Your task to perform on an android device: turn smart compose on in the gmail app Image 0: 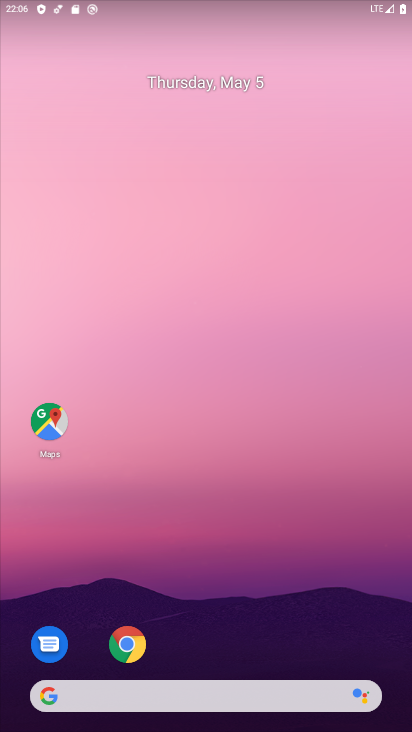
Step 0: drag from (199, 656) to (134, 40)
Your task to perform on an android device: turn smart compose on in the gmail app Image 1: 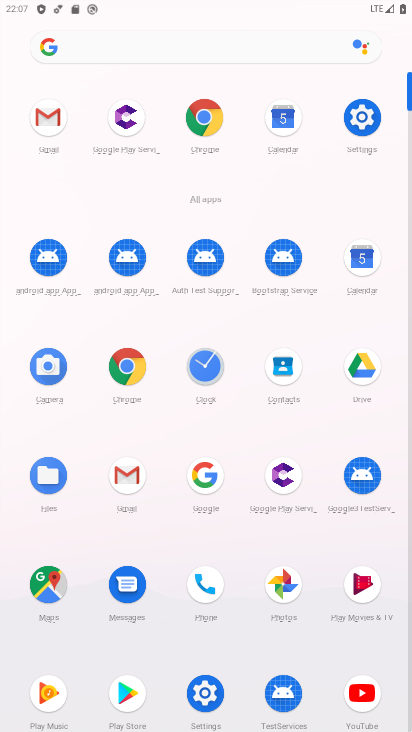
Step 1: click (129, 472)
Your task to perform on an android device: turn smart compose on in the gmail app Image 2: 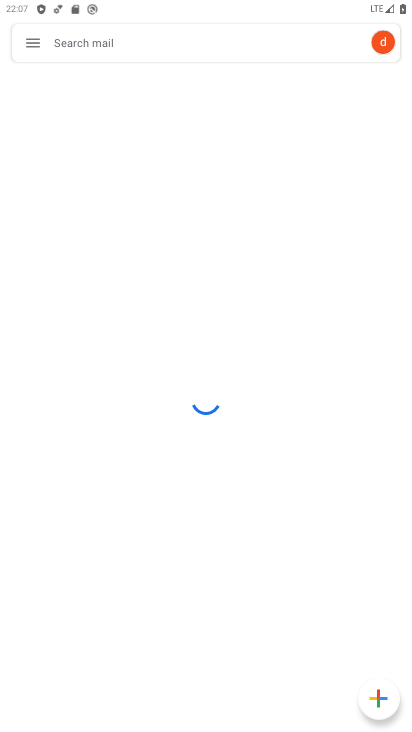
Step 2: click (35, 37)
Your task to perform on an android device: turn smart compose on in the gmail app Image 3: 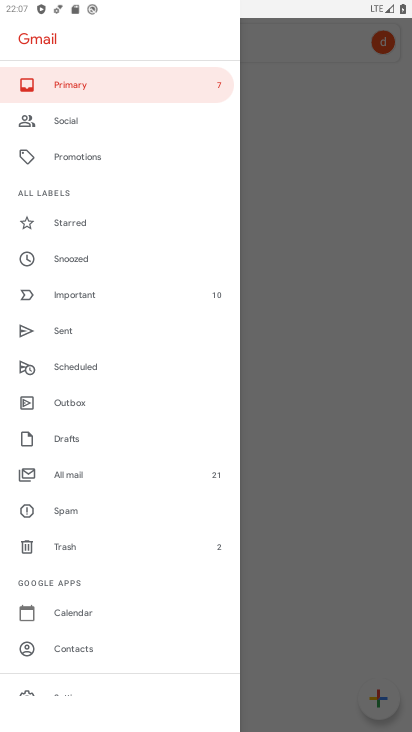
Step 3: click (25, 692)
Your task to perform on an android device: turn smart compose on in the gmail app Image 4: 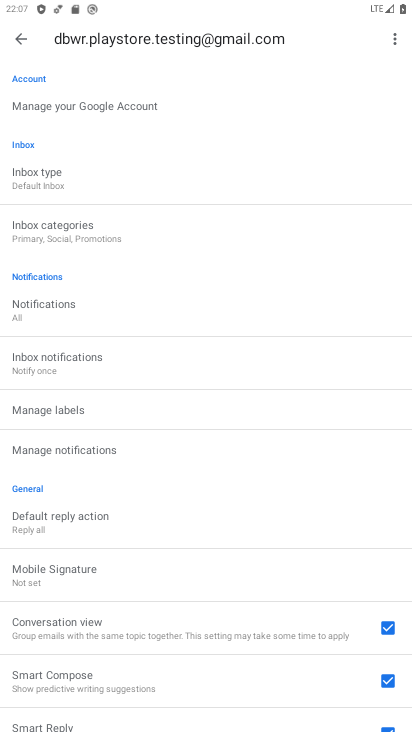
Step 4: task complete